Your task to perform on an android device: Open accessibility settings Image 0: 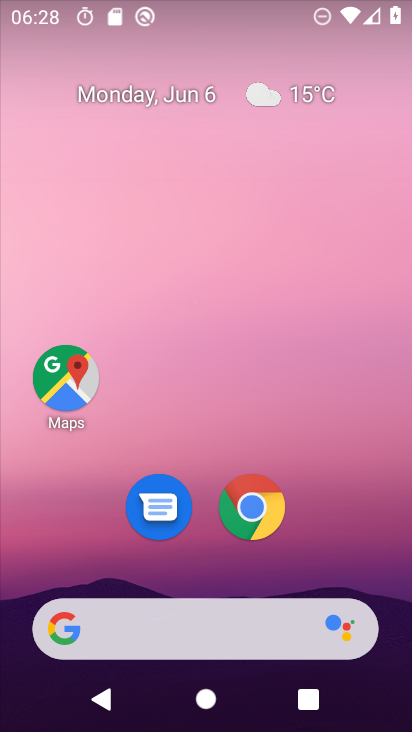
Step 0: drag from (206, 573) to (234, 133)
Your task to perform on an android device: Open accessibility settings Image 1: 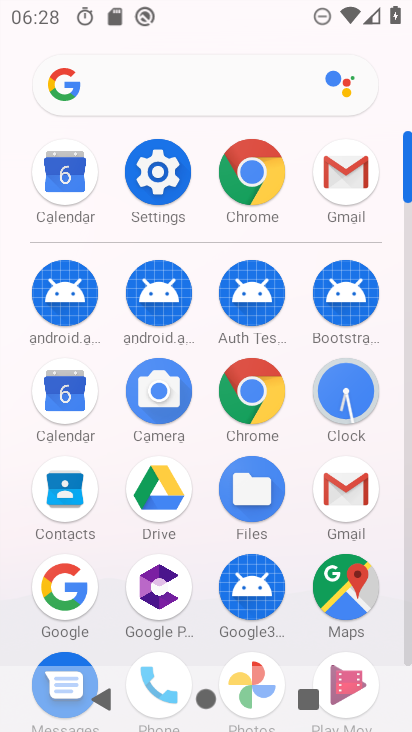
Step 1: press home button
Your task to perform on an android device: Open accessibility settings Image 2: 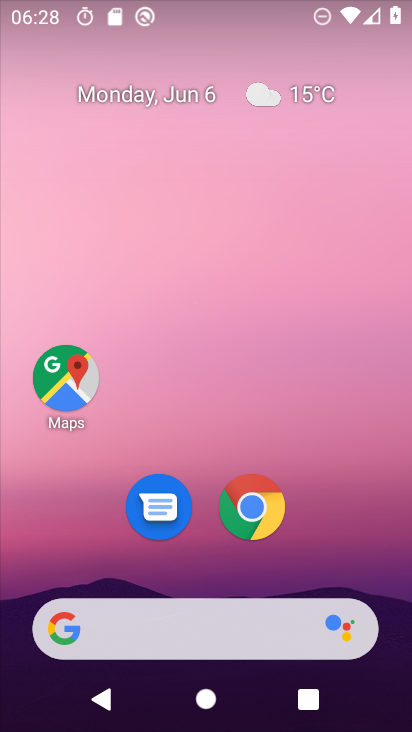
Step 2: drag from (216, 586) to (305, 118)
Your task to perform on an android device: Open accessibility settings Image 3: 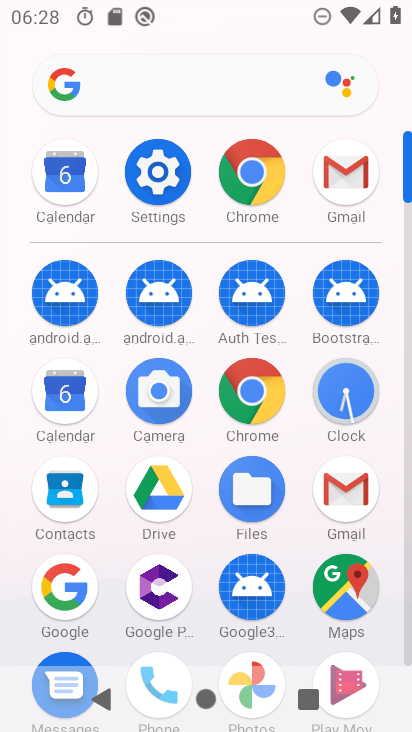
Step 3: click (159, 187)
Your task to perform on an android device: Open accessibility settings Image 4: 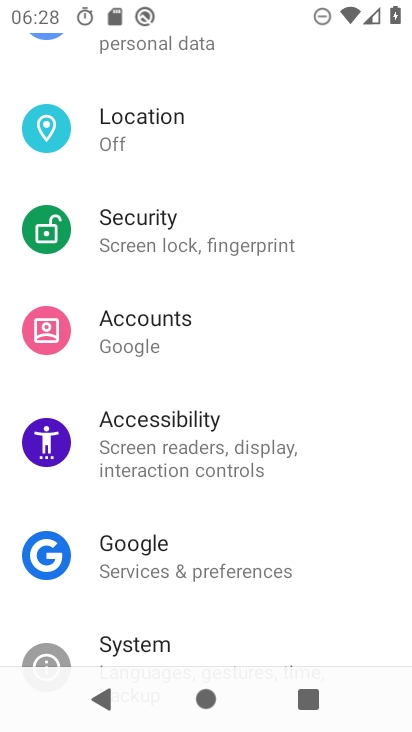
Step 4: click (173, 454)
Your task to perform on an android device: Open accessibility settings Image 5: 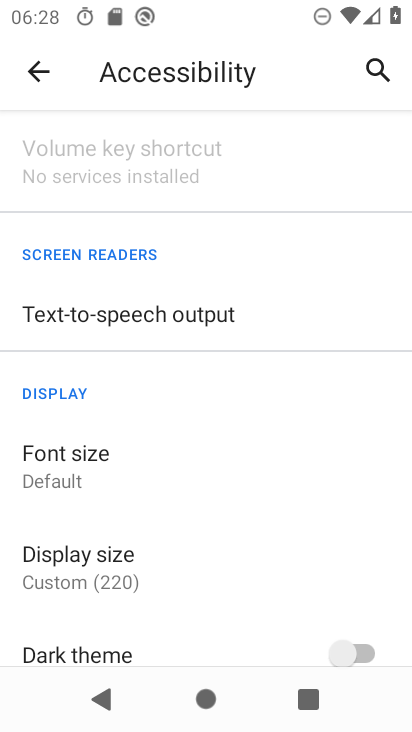
Step 5: task complete